Your task to perform on an android device: change notifications settings Image 0: 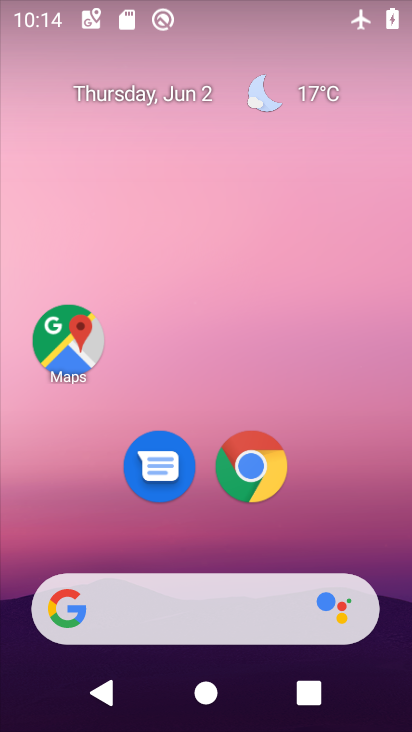
Step 0: drag from (292, 487) to (335, 101)
Your task to perform on an android device: change notifications settings Image 1: 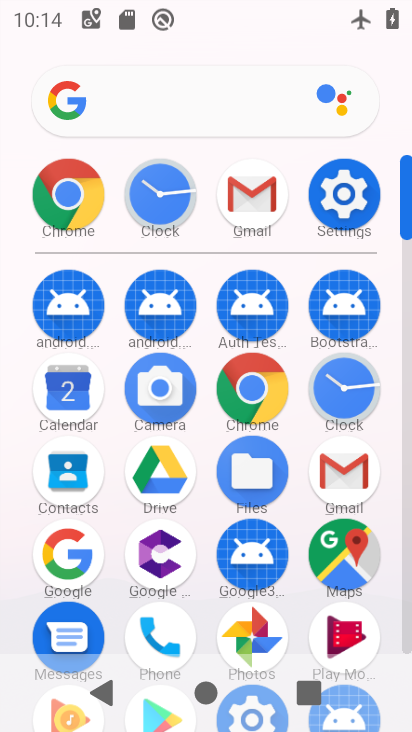
Step 1: click (348, 173)
Your task to perform on an android device: change notifications settings Image 2: 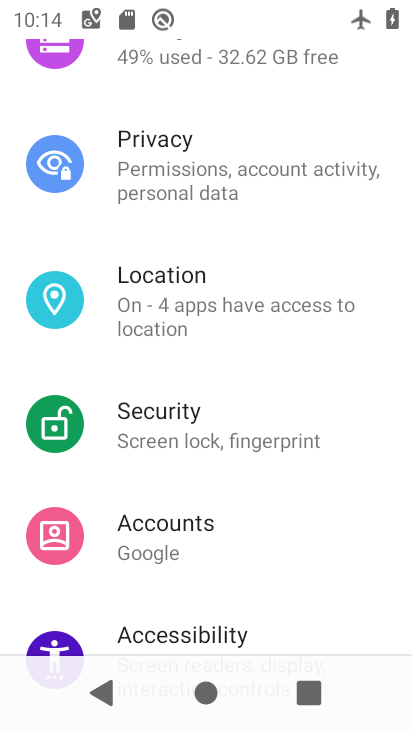
Step 2: drag from (206, 173) to (220, 639)
Your task to perform on an android device: change notifications settings Image 3: 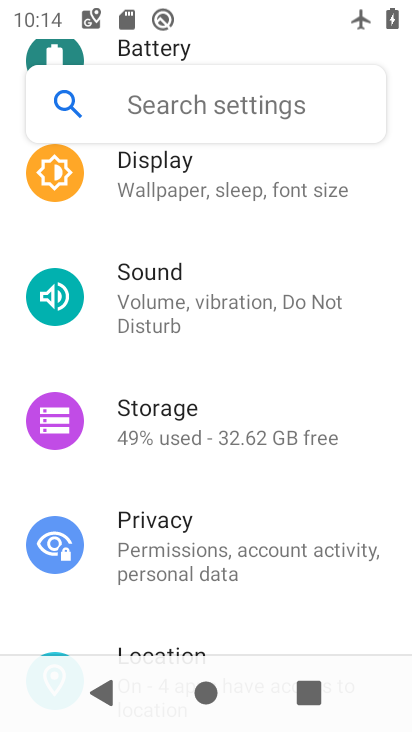
Step 3: drag from (228, 205) to (192, 574)
Your task to perform on an android device: change notifications settings Image 4: 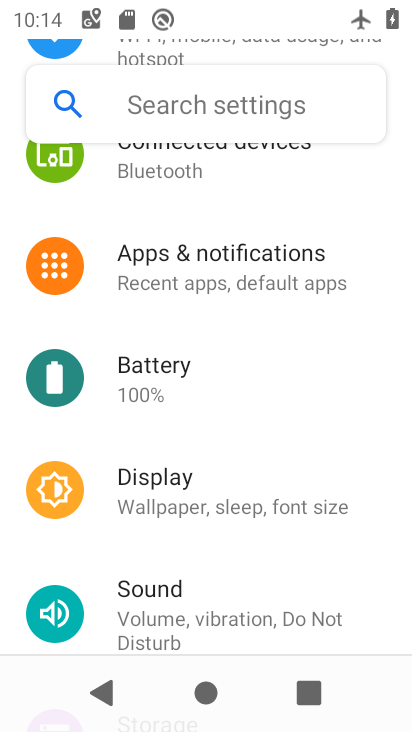
Step 4: drag from (213, 266) to (198, 547)
Your task to perform on an android device: change notifications settings Image 5: 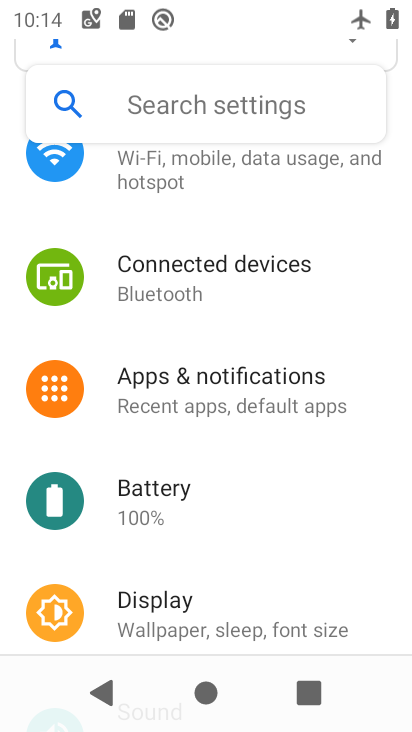
Step 5: click (209, 375)
Your task to perform on an android device: change notifications settings Image 6: 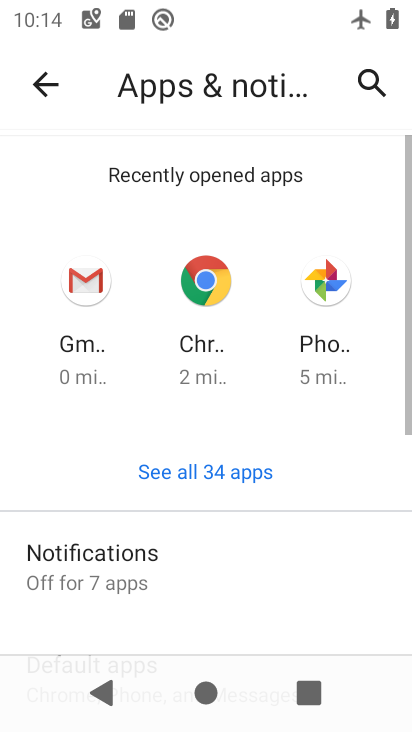
Step 6: drag from (203, 620) to (238, 368)
Your task to perform on an android device: change notifications settings Image 7: 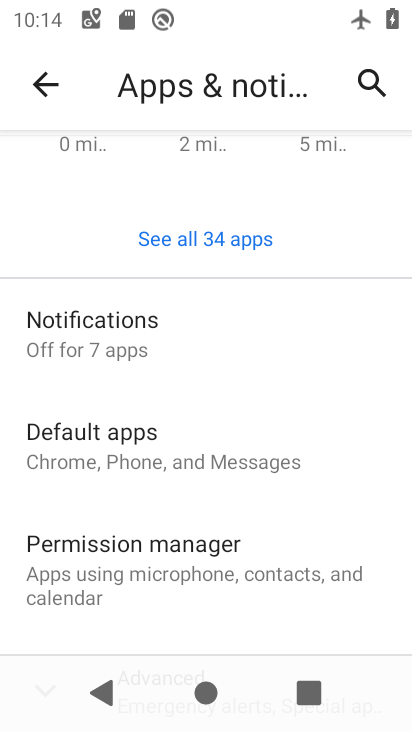
Step 7: click (231, 226)
Your task to perform on an android device: change notifications settings Image 8: 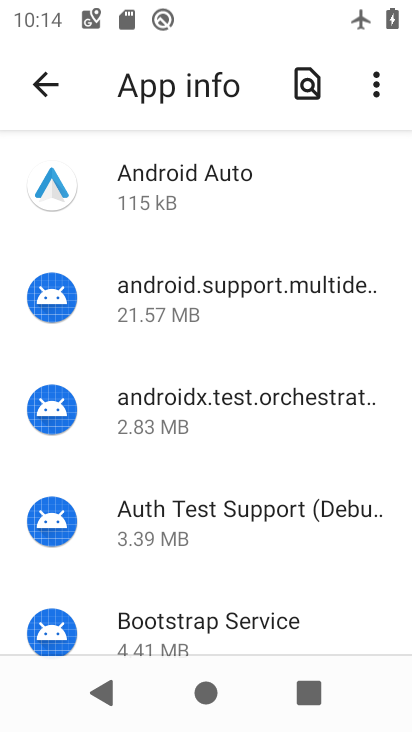
Step 8: click (19, 56)
Your task to perform on an android device: change notifications settings Image 9: 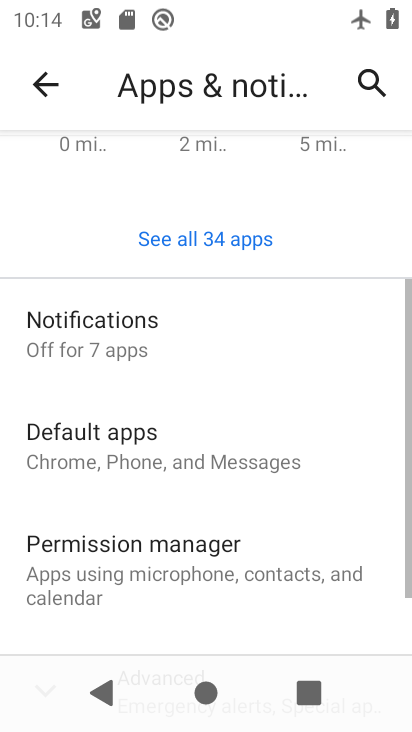
Step 9: drag from (172, 587) to (198, 302)
Your task to perform on an android device: change notifications settings Image 10: 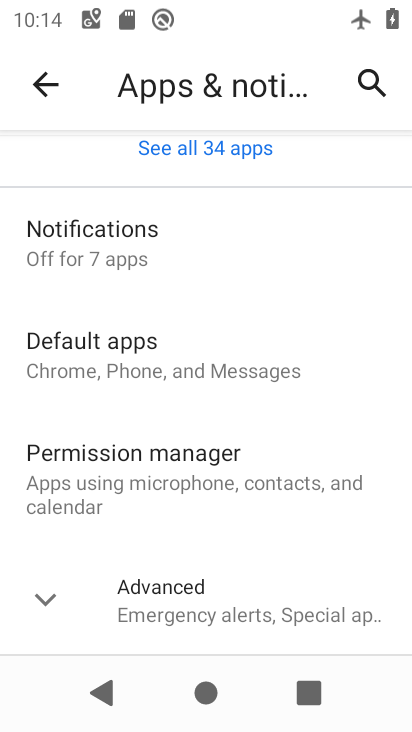
Step 10: drag from (188, 280) to (186, 664)
Your task to perform on an android device: change notifications settings Image 11: 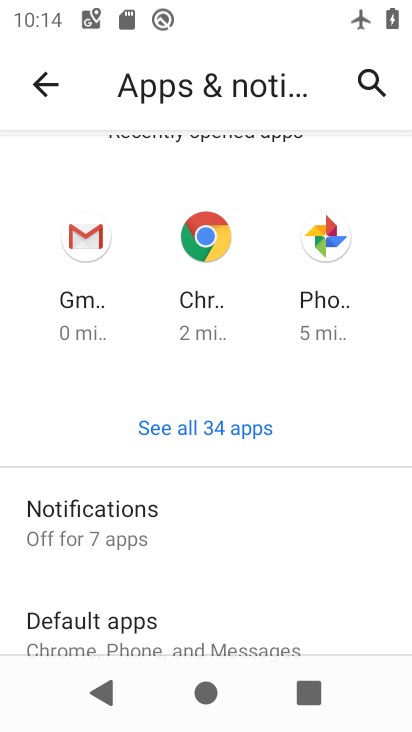
Step 11: drag from (198, 278) to (200, 599)
Your task to perform on an android device: change notifications settings Image 12: 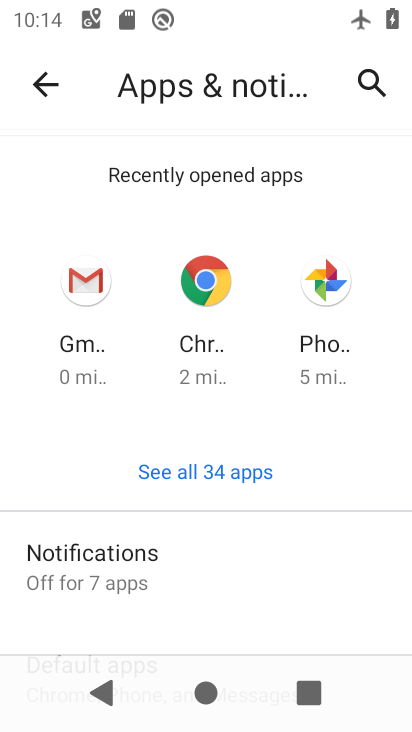
Step 12: click (57, 69)
Your task to perform on an android device: change notifications settings Image 13: 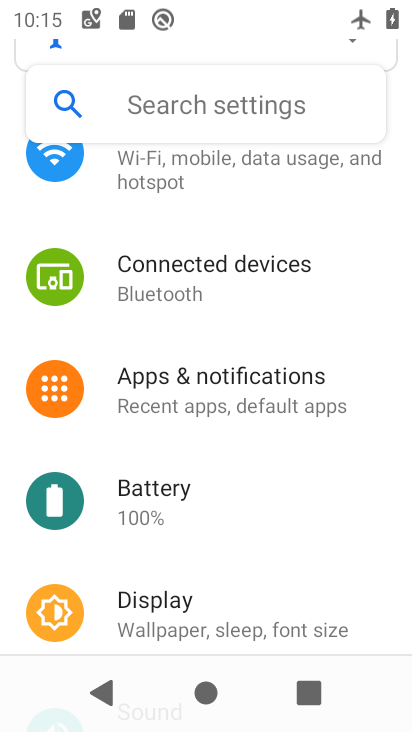
Step 13: drag from (199, 186) to (195, 468)
Your task to perform on an android device: change notifications settings Image 14: 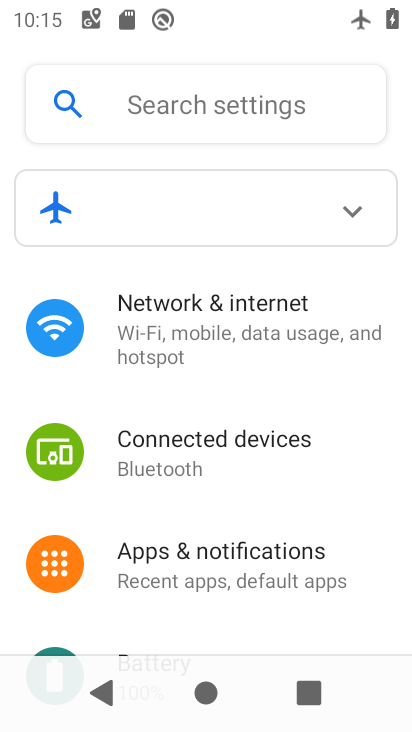
Step 14: click (202, 554)
Your task to perform on an android device: change notifications settings Image 15: 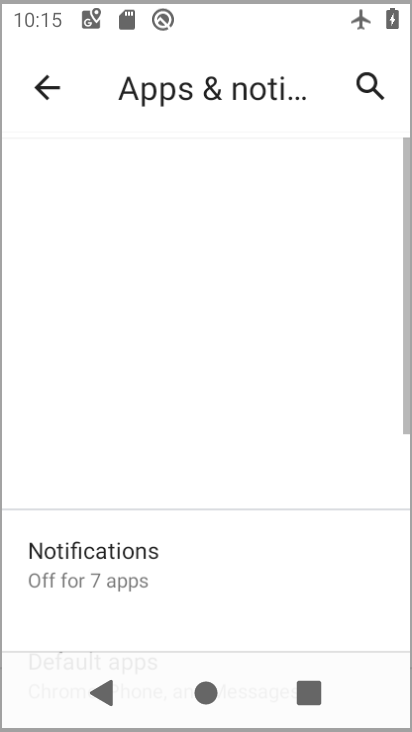
Step 15: drag from (214, 560) to (248, 286)
Your task to perform on an android device: change notifications settings Image 16: 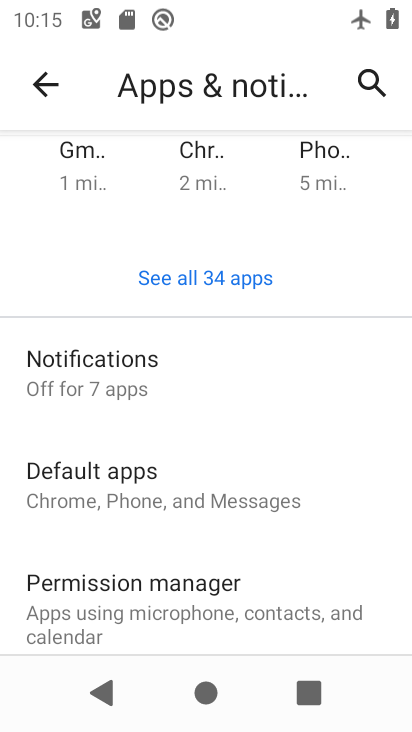
Step 16: click (205, 268)
Your task to perform on an android device: change notifications settings Image 17: 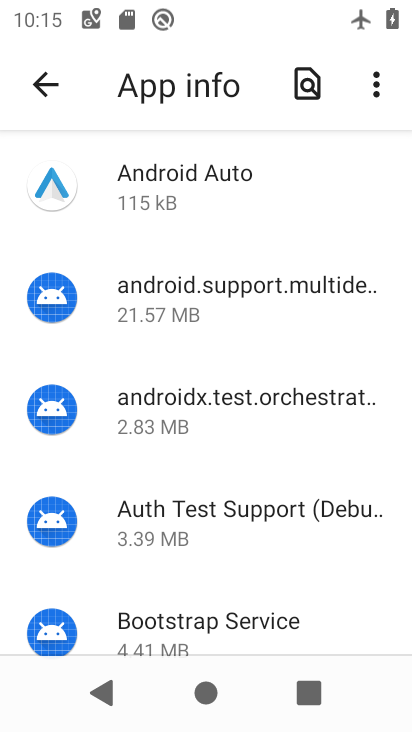
Step 17: drag from (282, 565) to (307, 294)
Your task to perform on an android device: change notifications settings Image 18: 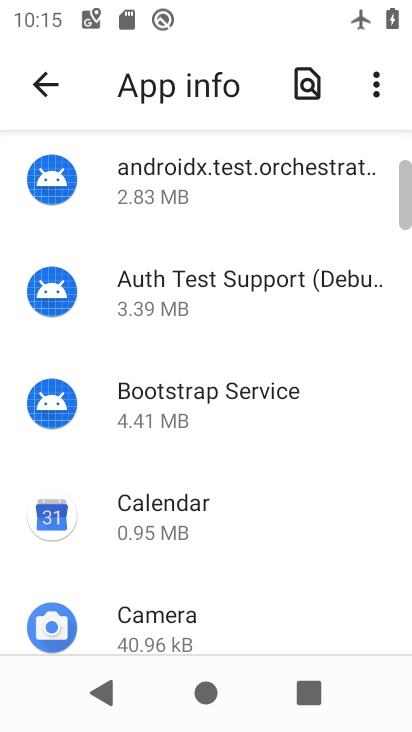
Step 18: drag from (247, 580) to (261, 227)
Your task to perform on an android device: change notifications settings Image 19: 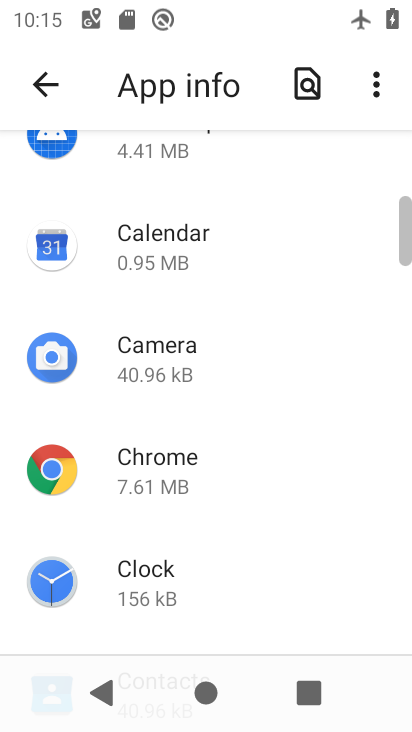
Step 19: drag from (226, 527) to (254, 171)
Your task to perform on an android device: change notifications settings Image 20: 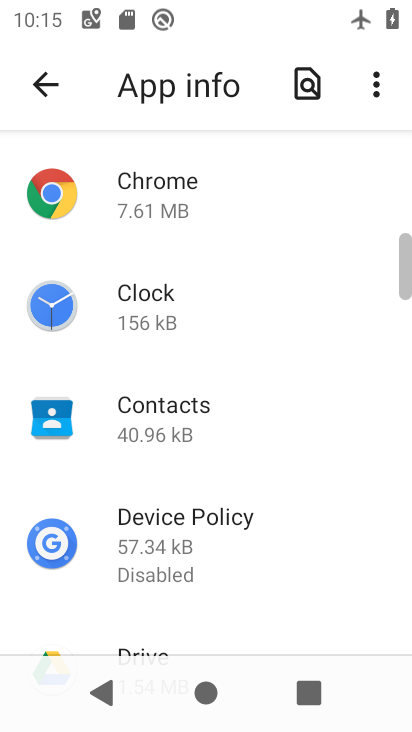
Step 20: drag from (200, 530) to (249, 196)
Your task to perform on an android device: change notifications settings Image 21: 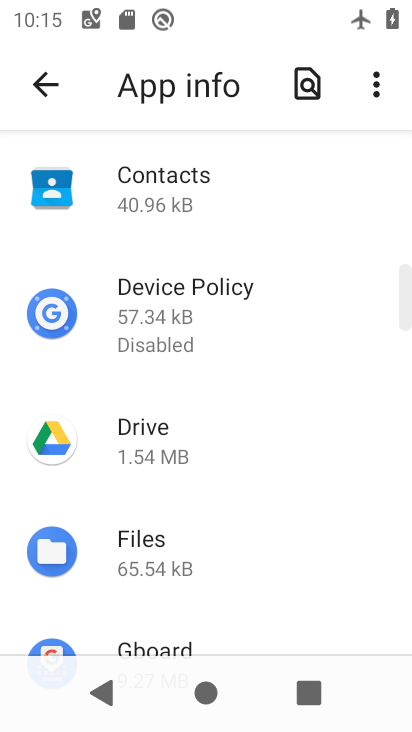
Step 21: click (48, 92)
Your task to perform on an android device: change notifications settings Image 22: 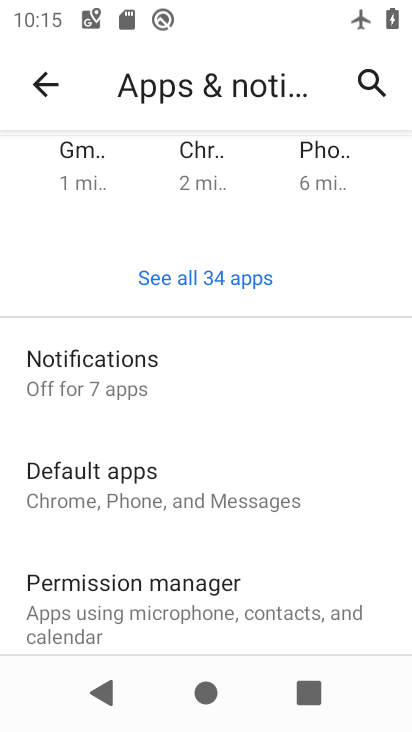
Step 22: click (114, 355)
Your task to perform on an android device: change notifications settings Image 23: 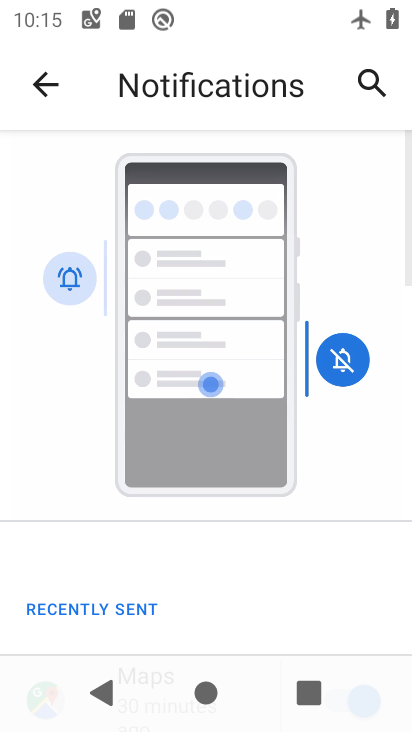
Step 23: drag from (130, 538) to (162, 207)
Your task to perform on an android device: change notifications settings Image 24: 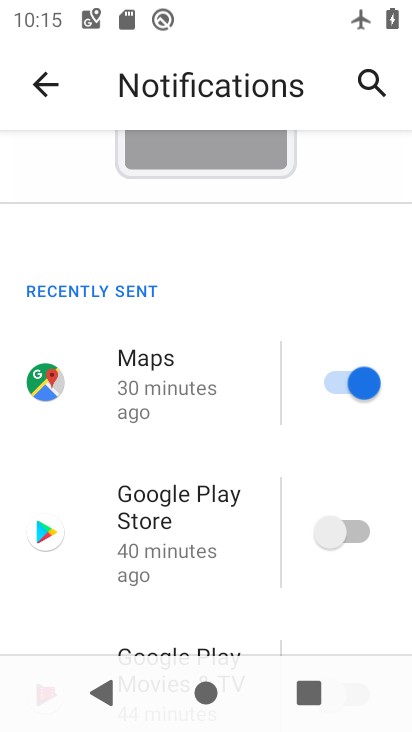
Step 24: drag from (205, 556) to (213, 223)
Your task to perform on an android device: change notifications settings Image 25: 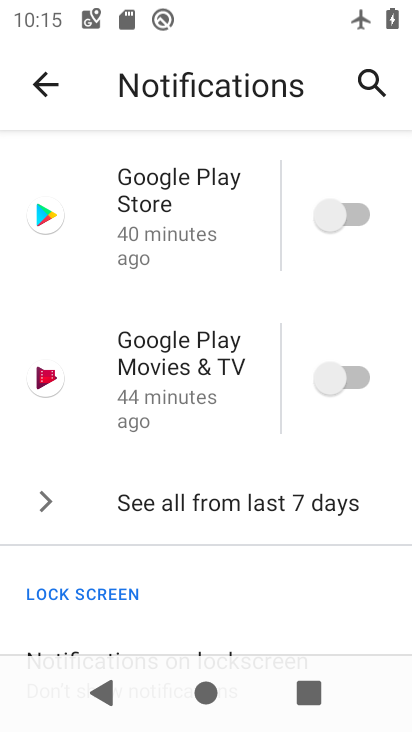
Step 25: click (328, 212)
Your task to perform on an android device: change notifications settings Image 26: 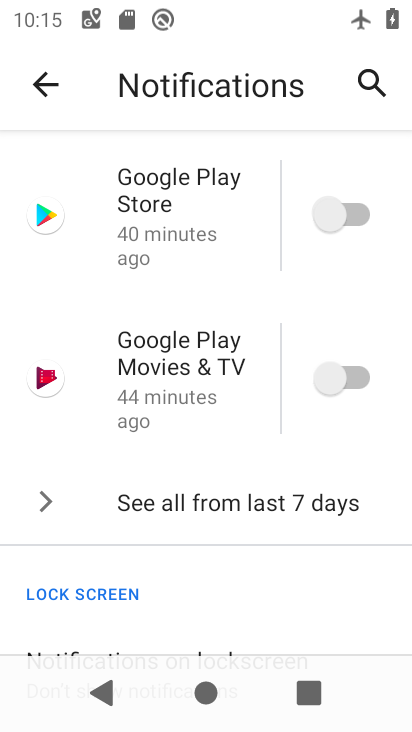
Step 26: click (346, 371)
Your task to perform on an android device: change notifications settings Image 27: 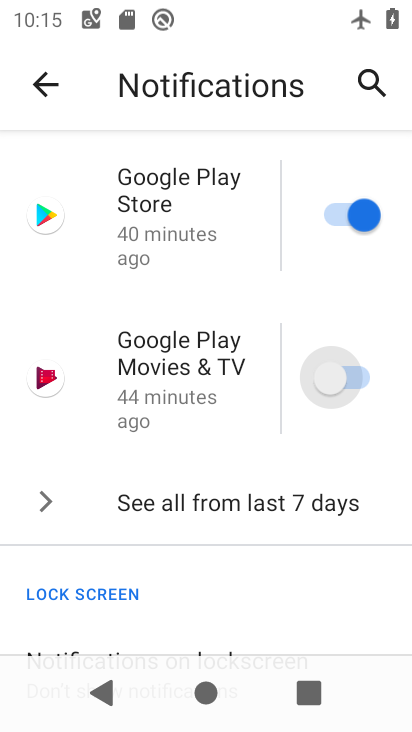
Step 27: click (276, 505)
Your task to perform on an android device: change notifications settings Image 28: 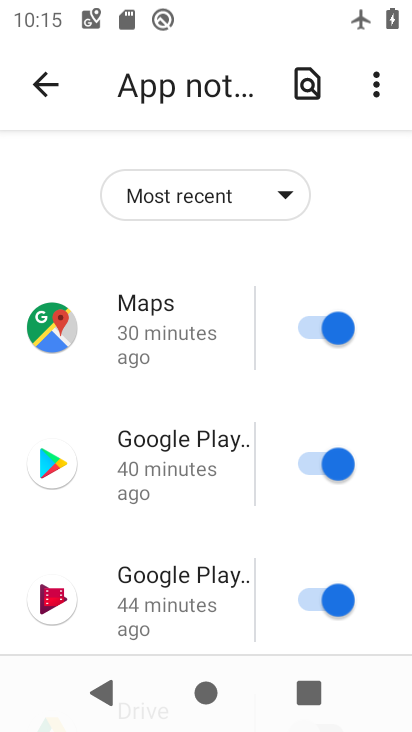
Step 28: drag from (163, 653) to (209, 271)
Your task to perform on an android device: change notifications settings Image 29: 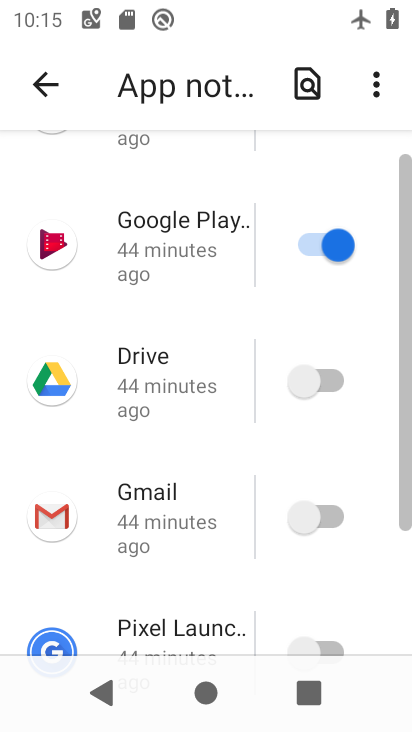
Step 29: drag from (239, 467) to (259, 295)
Your task to perform on an android device: change notifications settings Image 30: 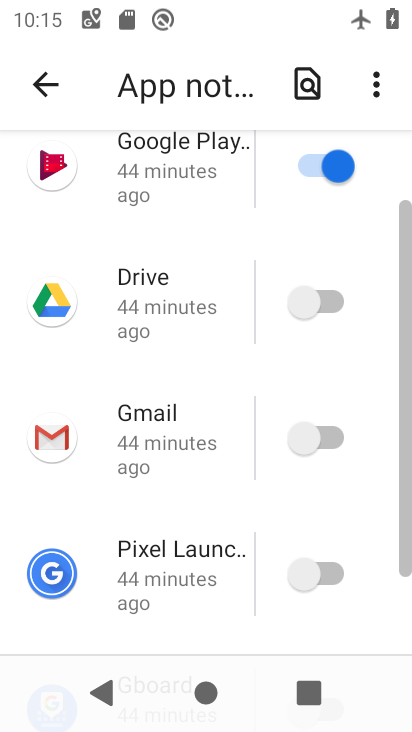
Step 30: click (320, 295)
Your task to perform on an android device: change notifications settings Image 31: 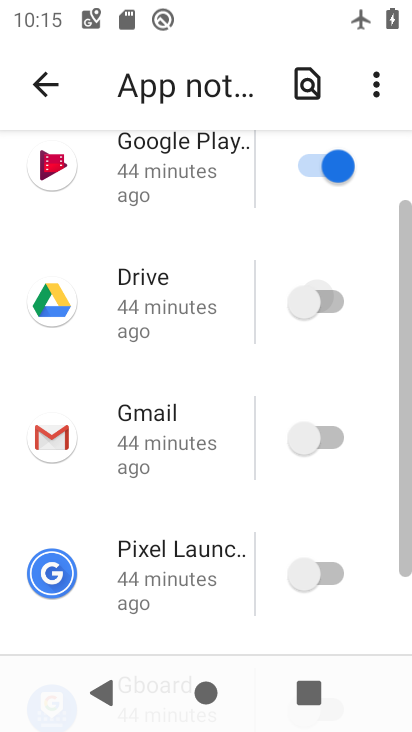
Step 31: click (293, 420)
Your task to perform on an android device: change notifications settings Image 32: 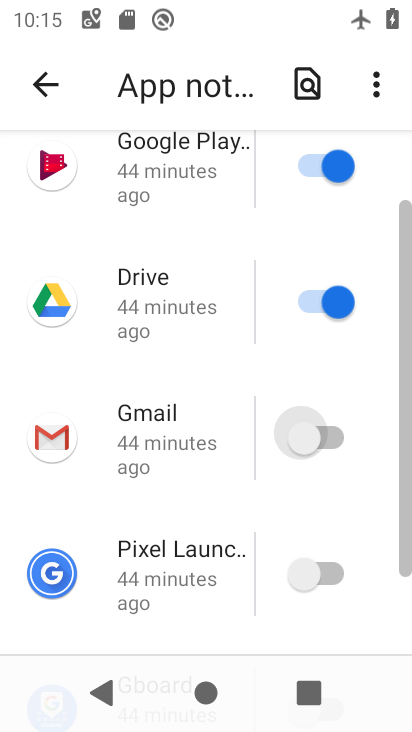
Step 32: click (317, 562)
Your task to perform on an android device: change notifications settings Image 33: 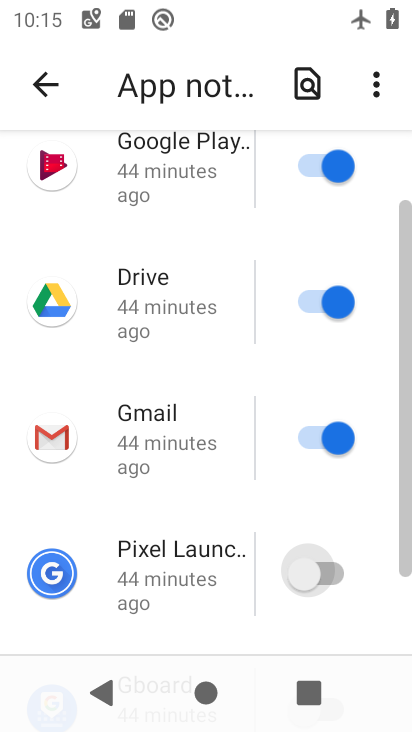
Step 33: drag from (136, 581) to (192, 118)
Your task to perform on an android device: change notifications settings Image 34: 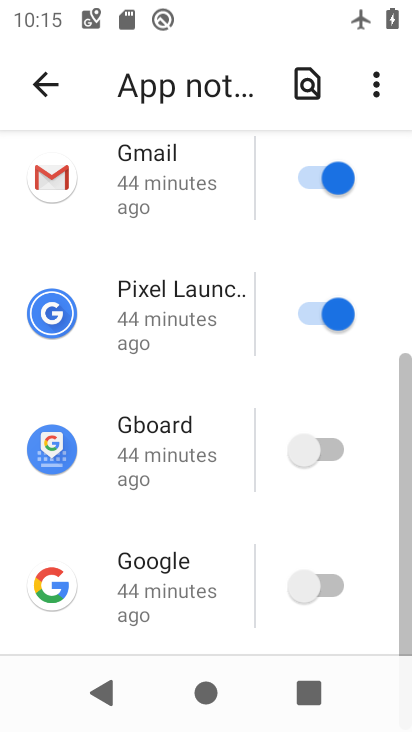
Step 34: click (325, 416)
Your task to perform on an android device: change notifications settings Image 35: 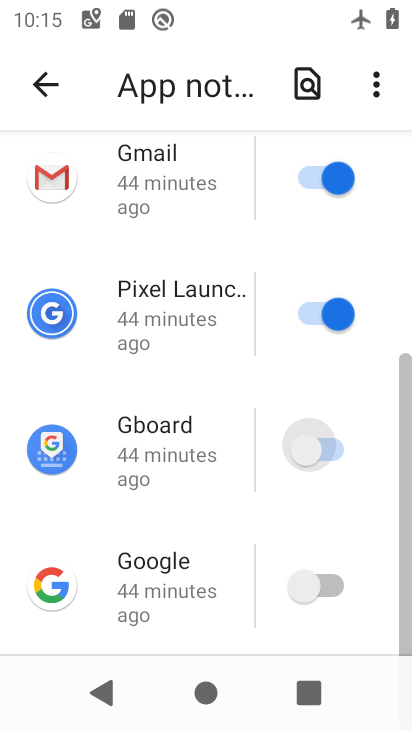
Step 35: click (307, 584)
Your task to perform on an android device: change notifications settings Image 36: 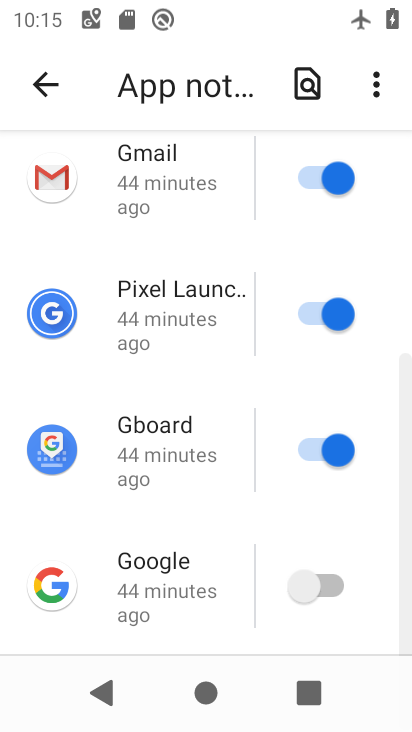
Step 36: drag from (180, 543) to (205, 205)
Your task to perform on an android device: change notifications settings Image 37: 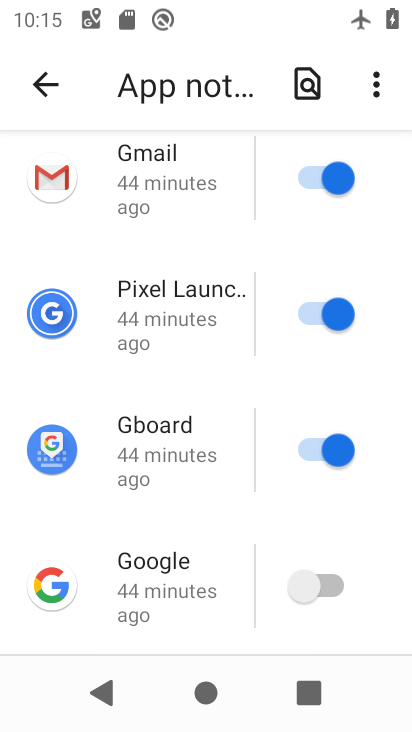
Step 37: click (312, 584)
Your task to perform on an android device: change notifications settings Image 38: 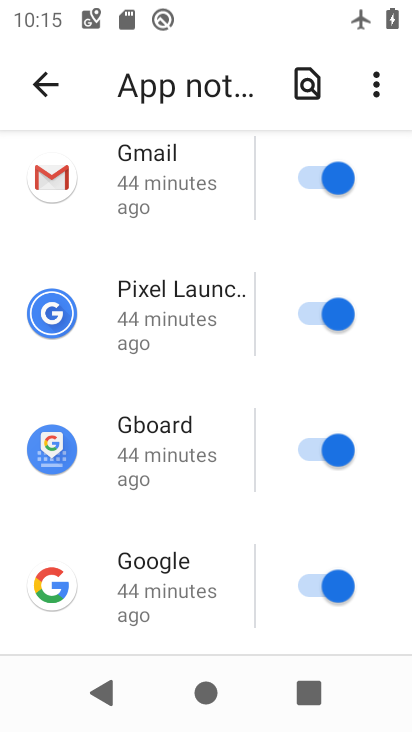
Step 38: task complete